Your task to perform on an android device: check storage Image 0: 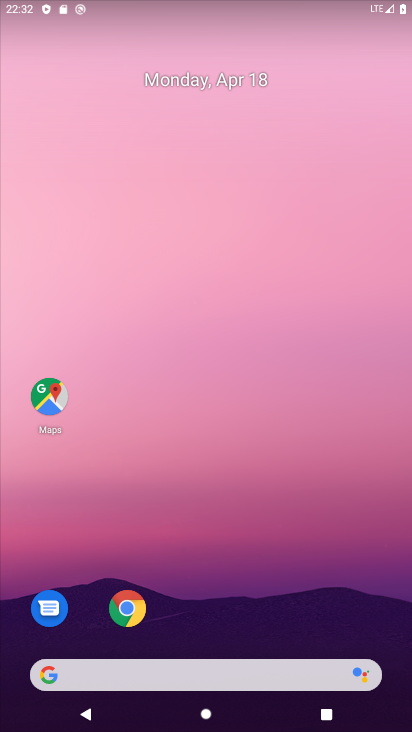
Step 0: drag from (191, 441) to (140, 21)
Your task to perform on an android device: check storage Image 1: 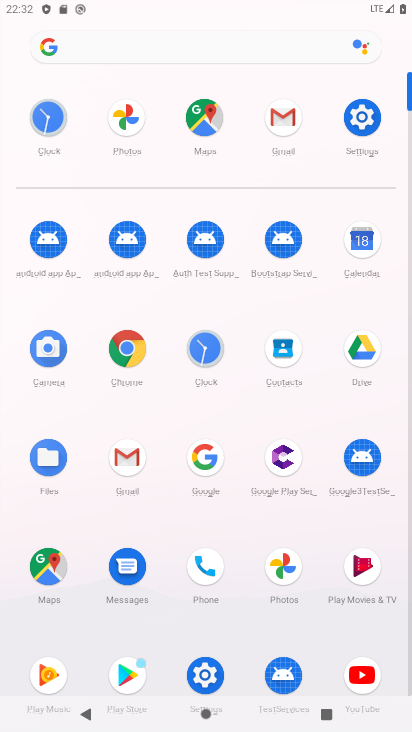
Step 1: click (360, 123)
Your task to perform on an android device: check storage Image 2: 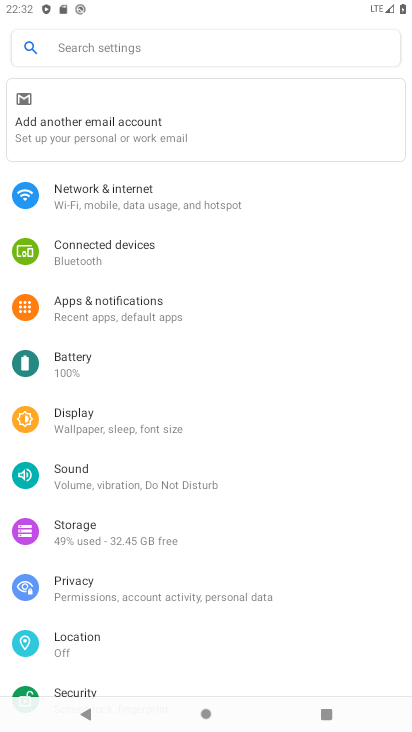
Step 2: click (117, 536)
Your task to perform on an android device: check storage Image 3: 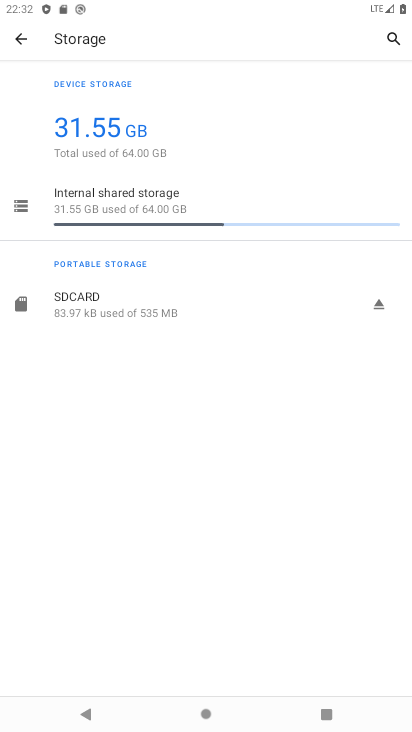
Step 3: task complete